Your task to perform on an android device: delete browsing data in the chrome app Image 0: 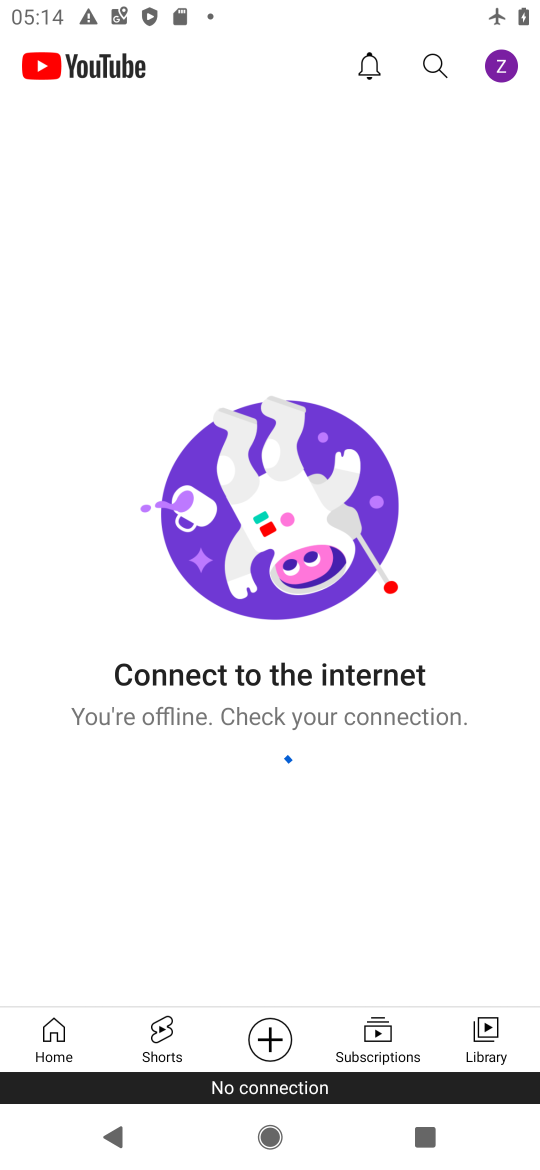
Step 0: press home button
Your task to perform on an android device: delete browsing data in the chrome app Image 1: 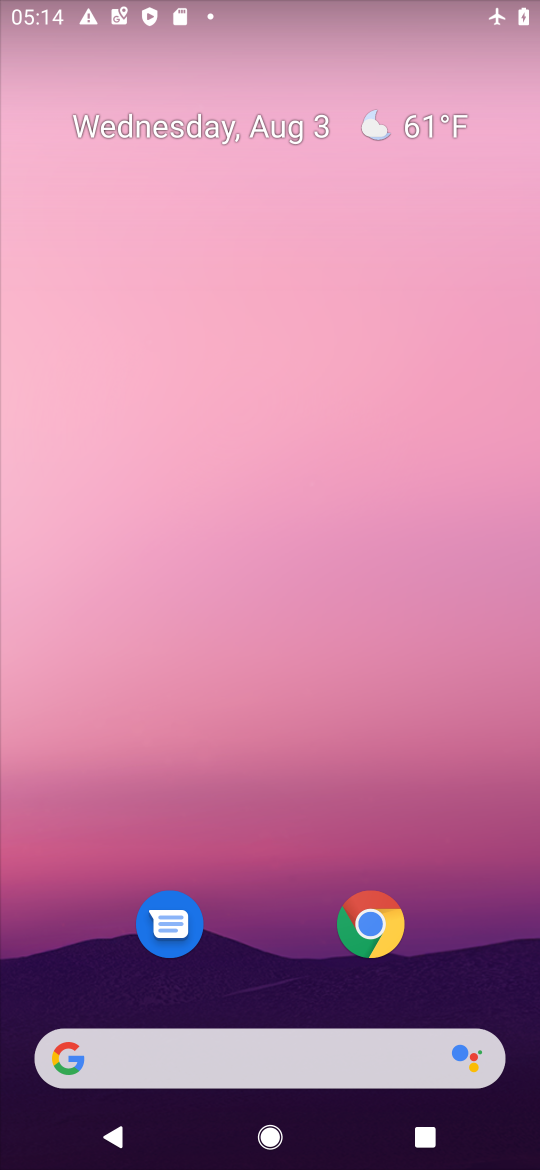
Step 1: click (381, 923)
Your task to perform on an android device: delete browsing data in the chrome app Image 2: 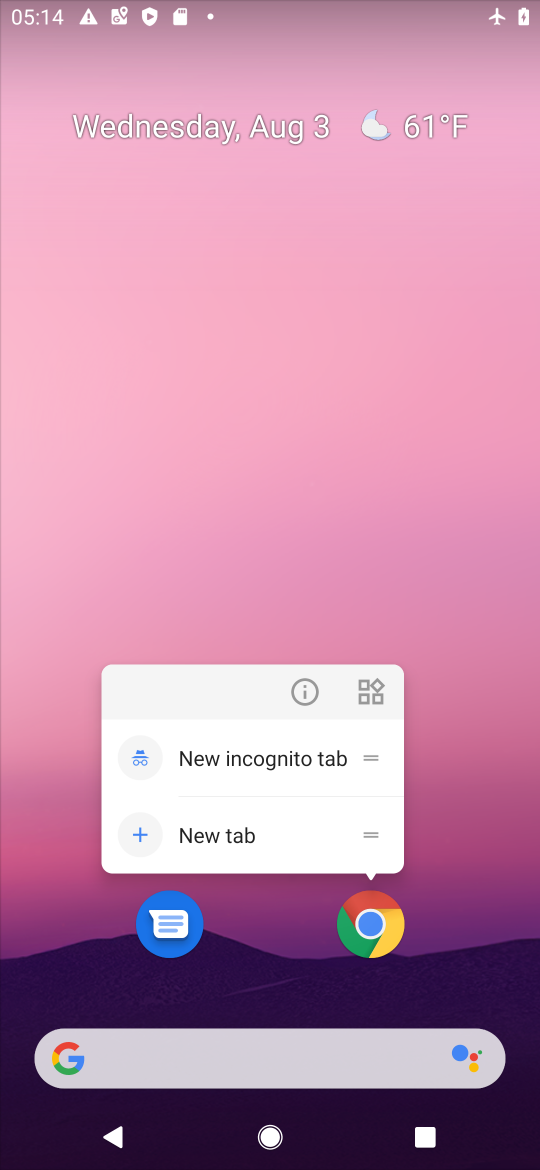
Step 2: click (381, 923)
Your task to perform on an android device: delete browsing data in the chrome app Image 3: 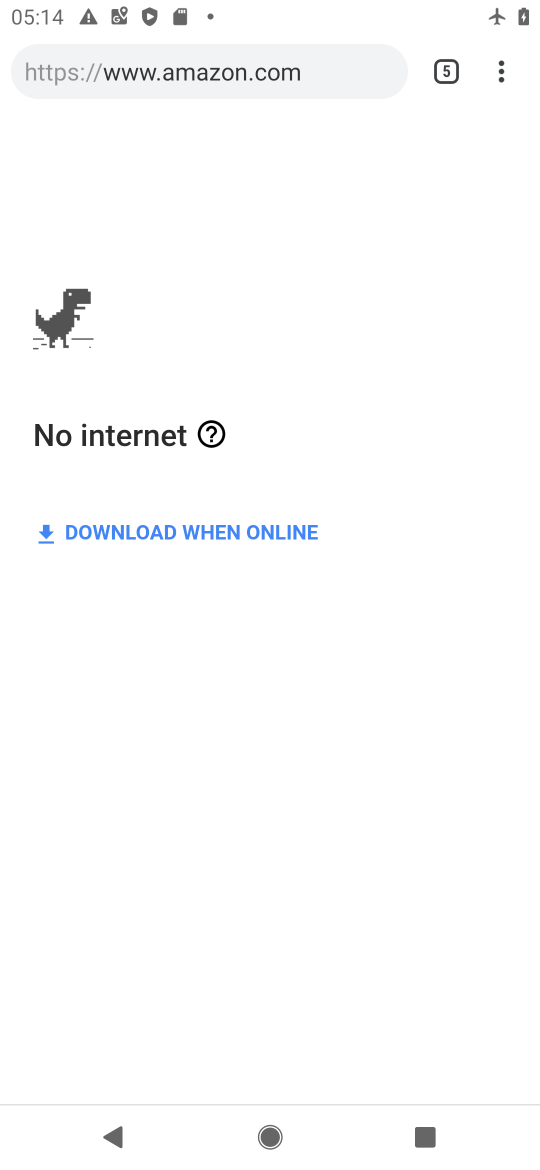
Step 3: click (523, 92)
Your task to perform on an android device: delete browsing data in the chrome app Image 4: 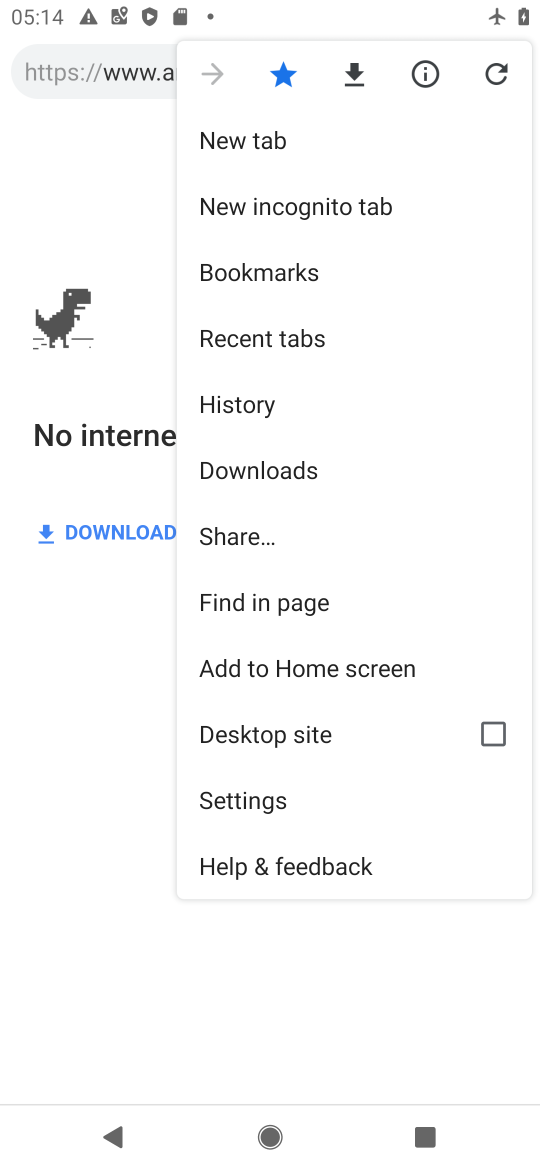
Step 4: click (259, 403)
Your task to perform on an android device: delete browsing data in the chrome app Image 5: 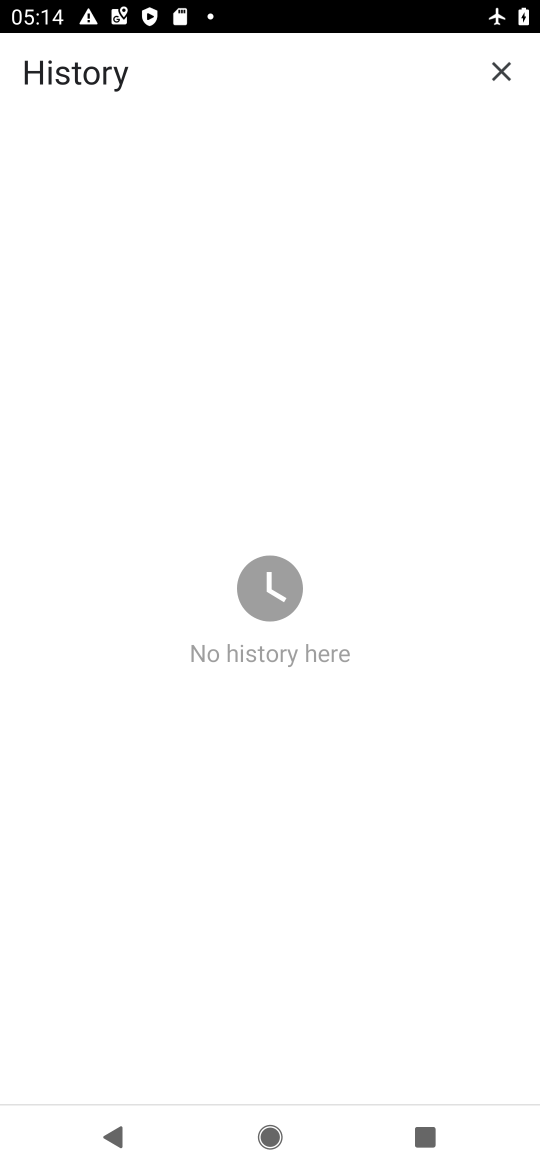
Step 5: task complete